Your task to perform on an android device: Go to Yahoo.com Image 0: 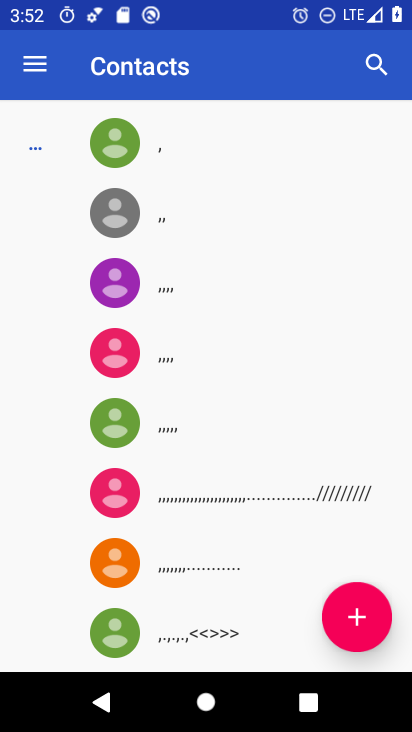
Step 0: press home button
Your task to perform on an android device: Go to Yahoo.com Image 1: 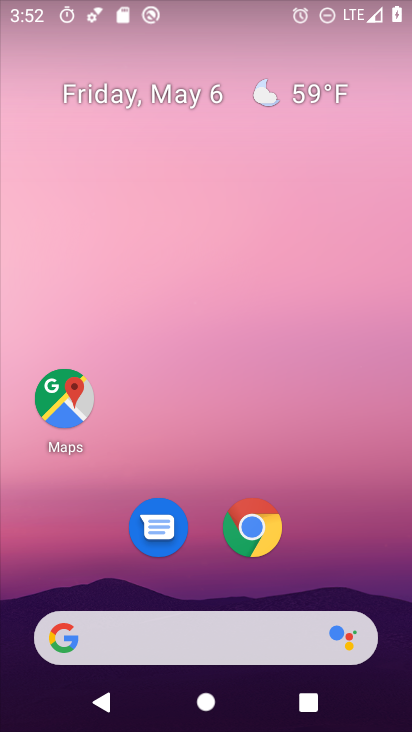
Step 1: click (254, 525)
Your task to perform on an android device: Go to Yahoo.com Image 2: 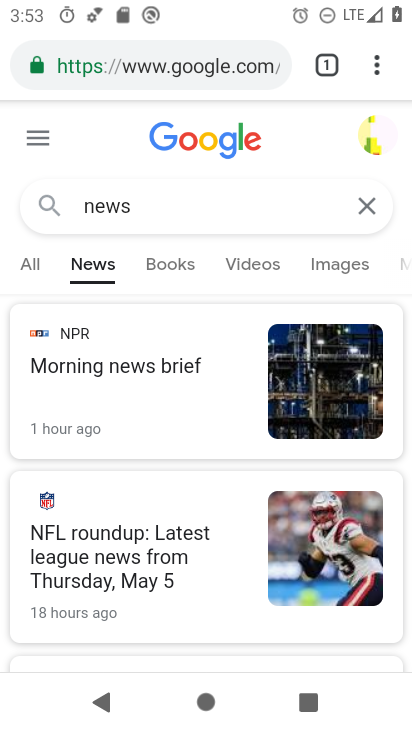
Step 2: click (122, 62)
Your task to perform on an android device: Go to Yahoo.com Image 3: 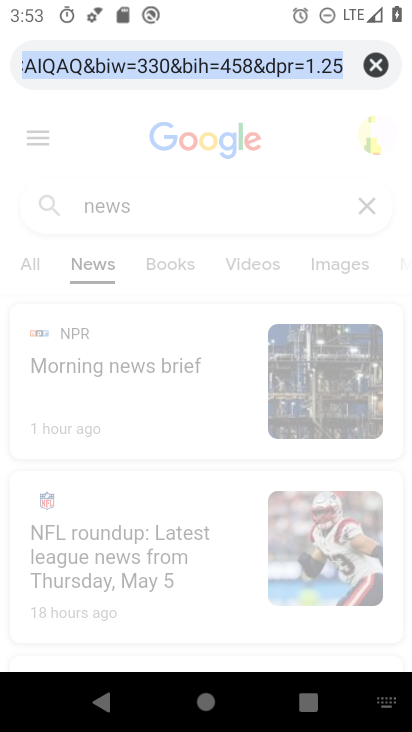
Step 3: click (376, 62)
Your task to perform on an android device: Go to Yahoo.com Image 4: 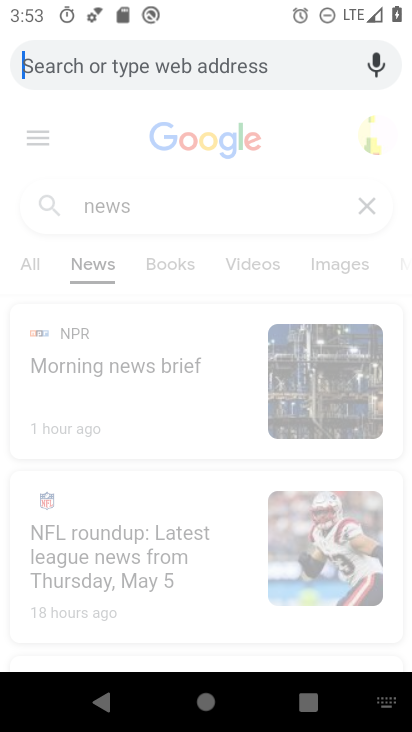
Step 4: type "yahoo.com"
Your task to perform on an android device: Go to Yahoo.com Image 5: 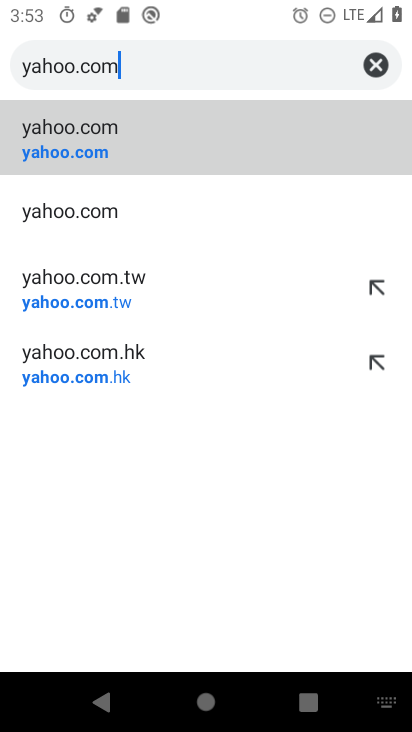
Step 5: click (19, 150)
Your task to perform on an android device: Go to Yahoo.com Image 6: 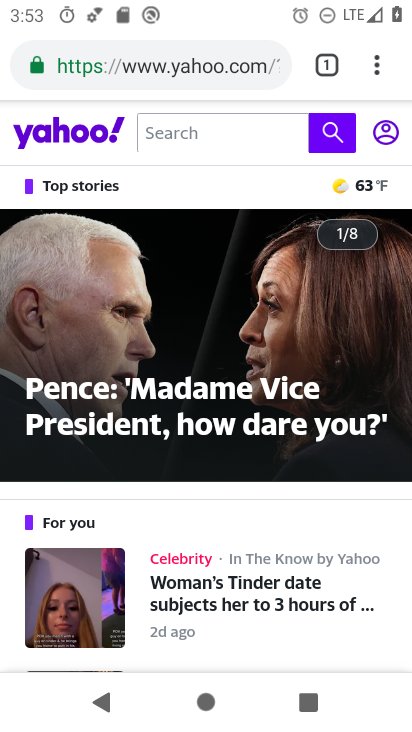
Step 6: task complete